Your task to perform on an android device: What's the weather going to be this weekend? Image 0: 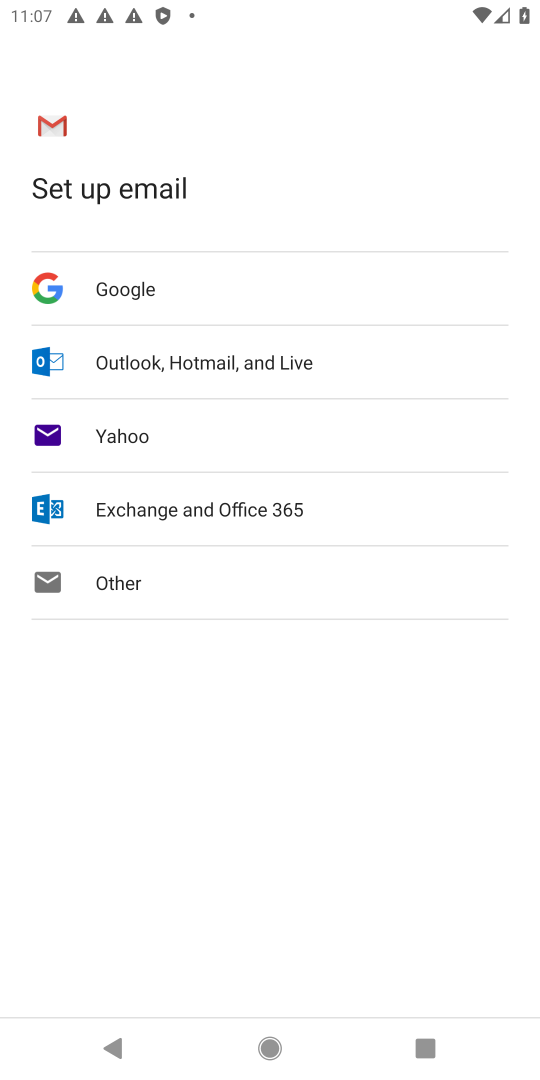
Step 0: press home button
Your task to perform on an android device: What's the weather going to be this weekend? Image 1: 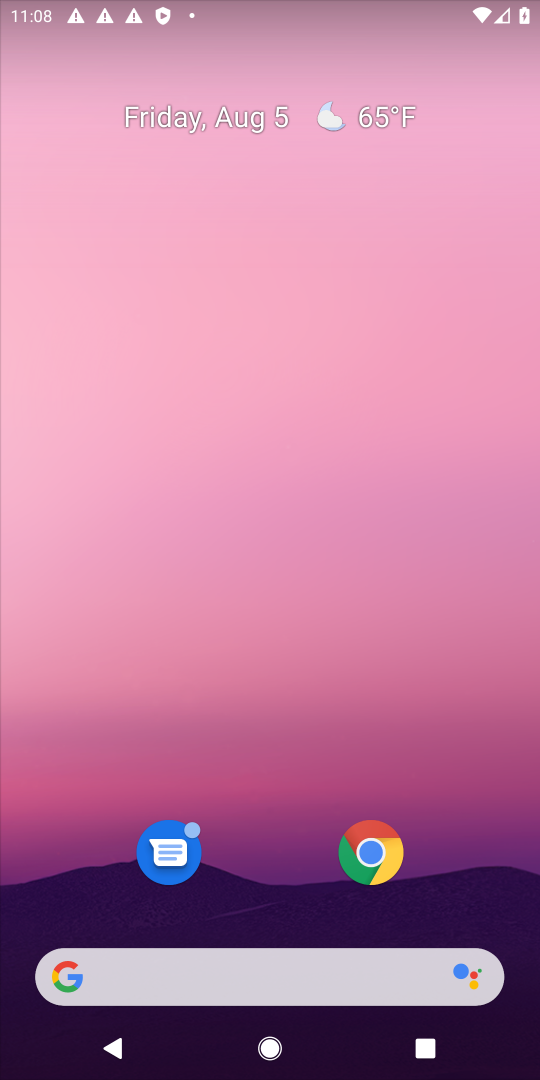
Step 1: drag from (356, 934) to (444, 267)
Your task to perform on an android device: What's the weather going to be this weekend? Image 2: 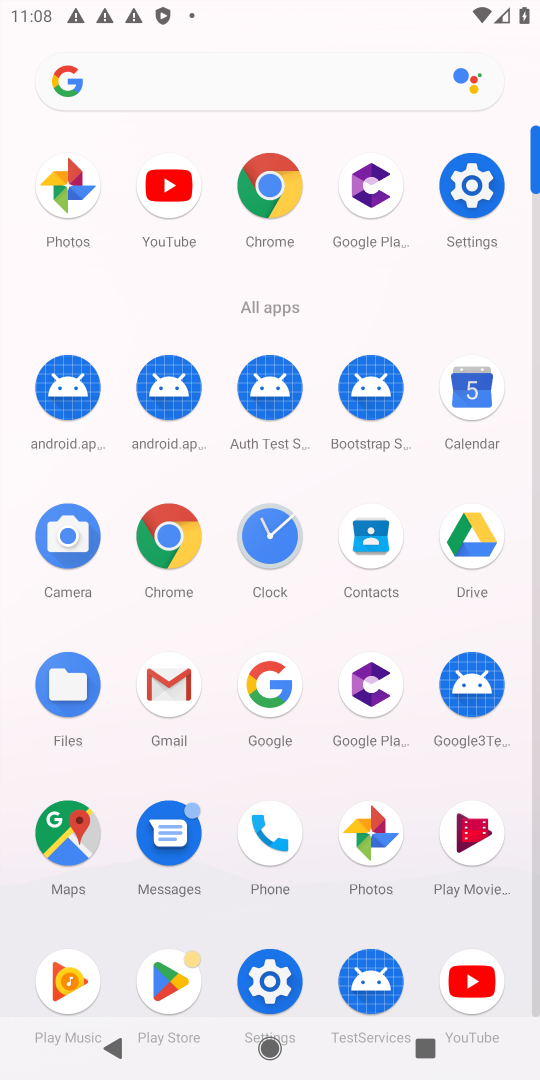
Step 2: click (176, 71)
Your task to perform on an android device: What's the weather going to be this weekend? Image 3: 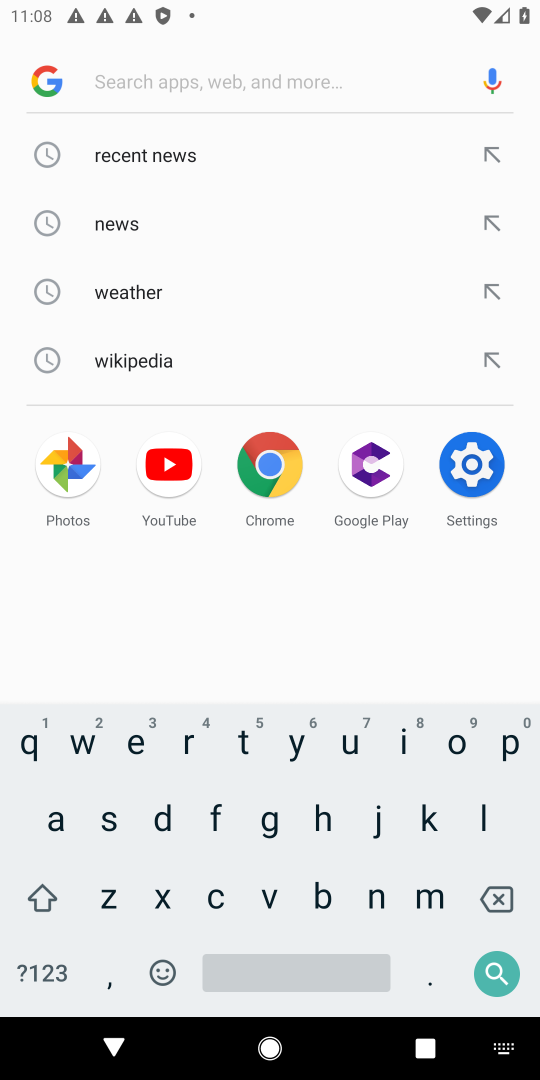
Step 3: click (86, 743)
Your task to perform on an android device: What's the weather going to be this weekend? Image 4: 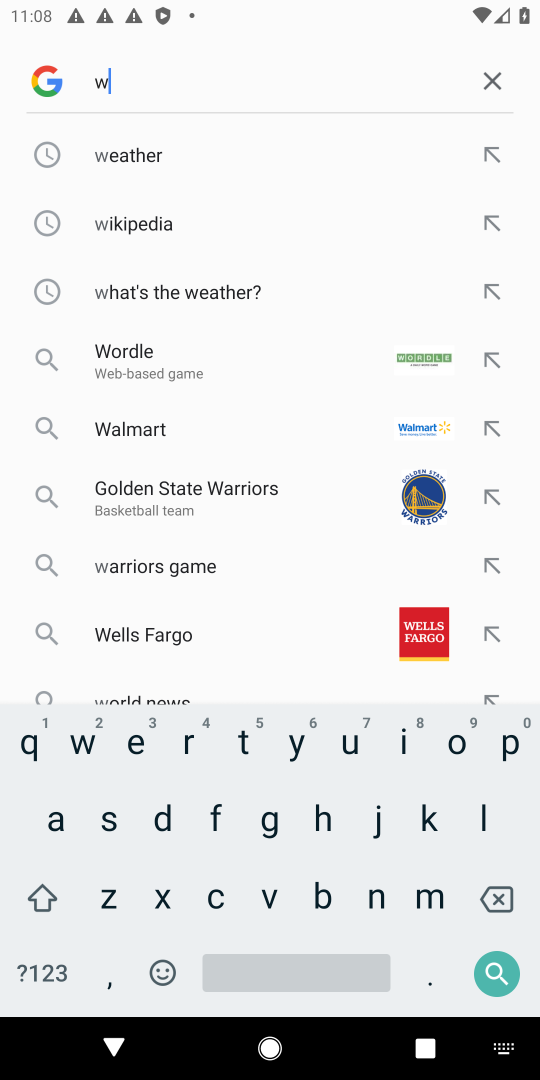
Step 4: click (320, 824)
Your task to perform on an android device: What's the weather going to be this weekend? Image 5: 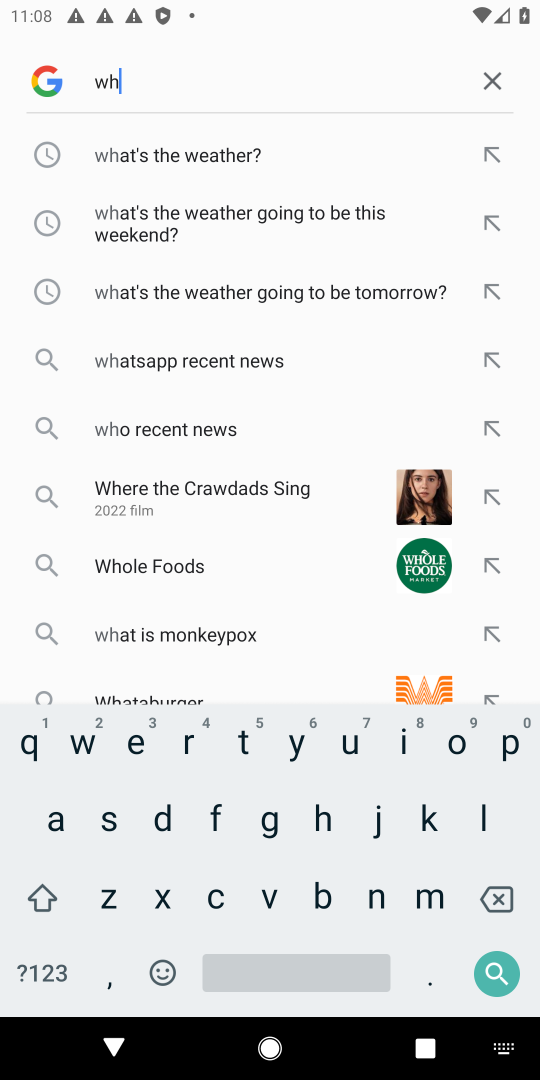
Step 5: click (217, 221)
Your task to perform on an android device: What's the weather going to be this weekend? Image 6: 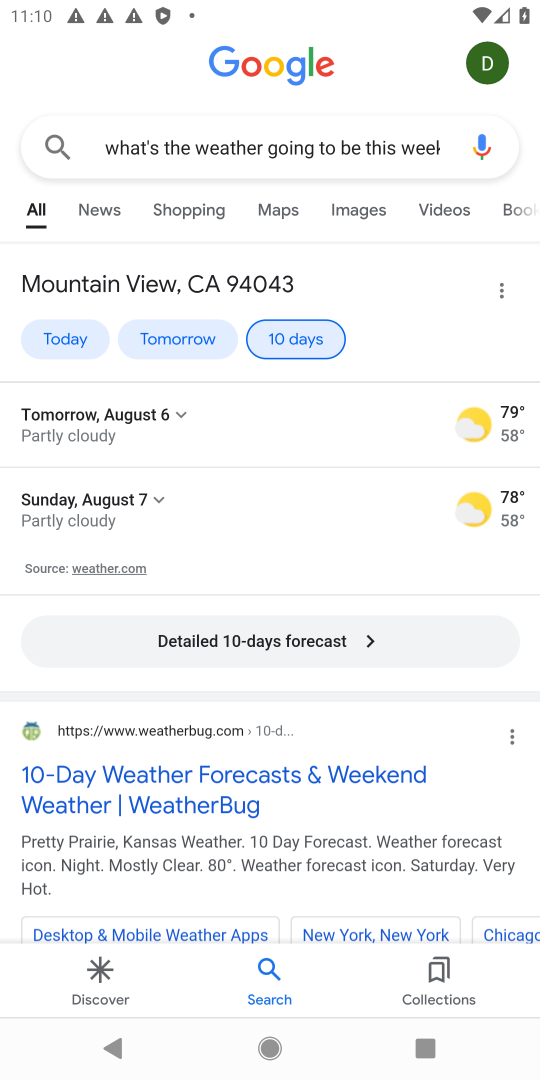
Step 6: task complete